Your task to perform on an android device: change notifications settings Image 0: 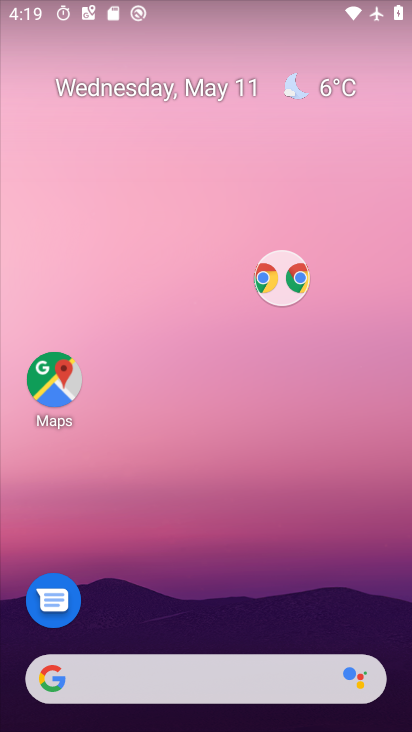
Step 0: press home button
Your task to perform on an android device: change notifications settings Image 1: 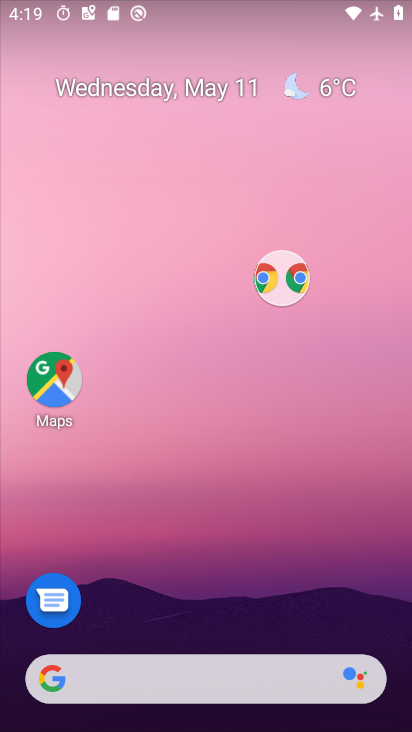
Step 1: drag from (328, 559) to (163, 160)
Your task to perform on an android device: change notifications settings Image 2: 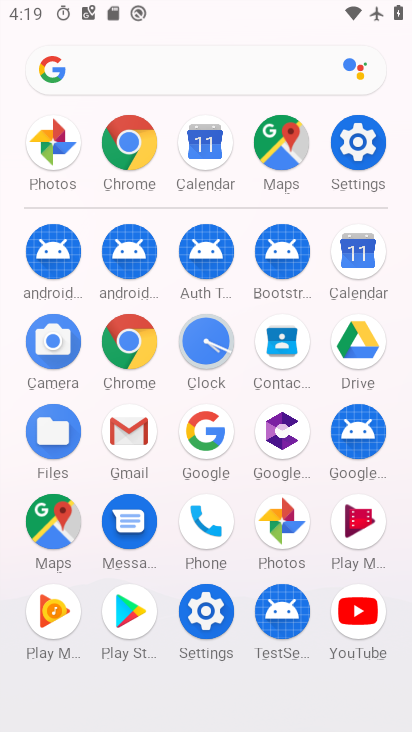
Step 2: click (350, 149)
Your task to perform on an android device: change notifications settings Image 3: 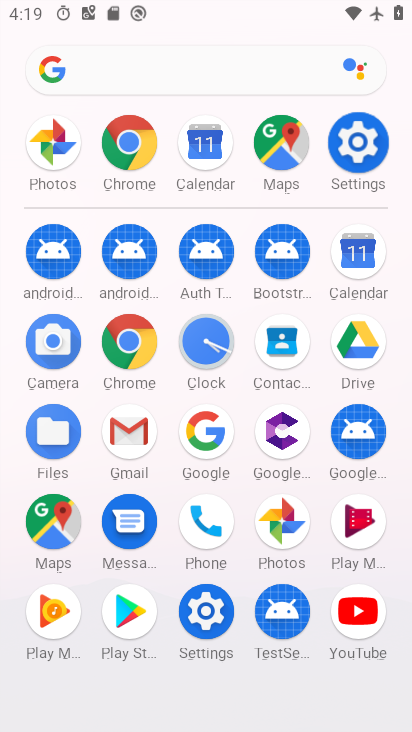
Step 3: click (349, 148)
Your task to perform on an android device: change notifications settings Image 4: 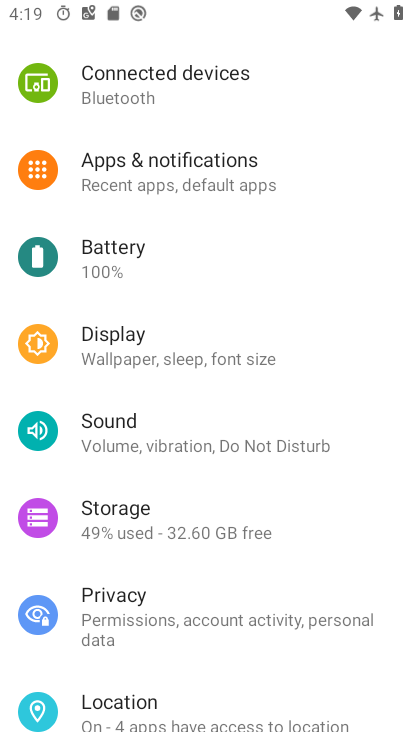
Step 4: click (172, 183)
Your task to perform on an android device: change notifications settings Image 5: 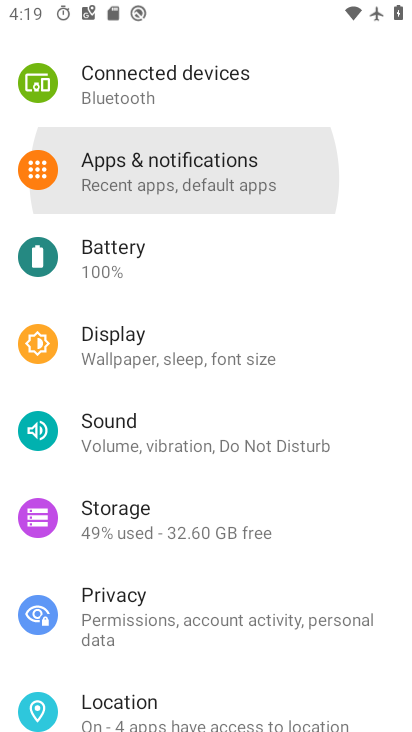
Step 5: click (172, 183)
Your task to perform on an android device: change notifications settings Image 6: 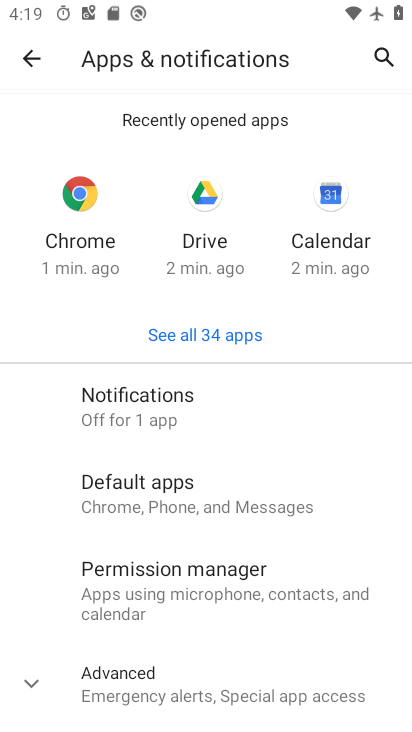
Step 6: click (125, 397)
Your task to perform on an android device: change notifications settings Image 7: 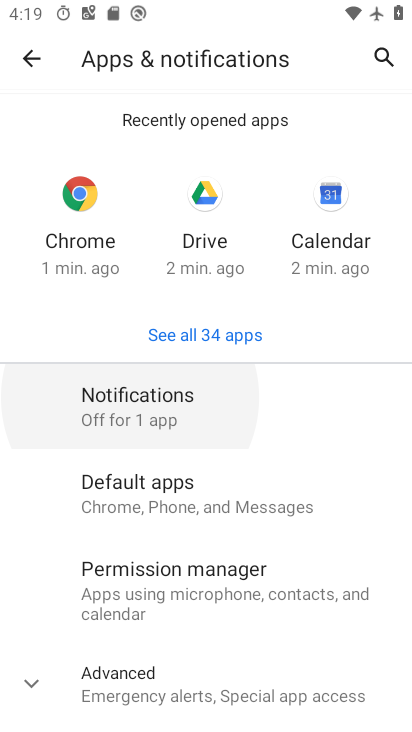
Step 7: click (125, 397)
Your task to perform on an android device: change notifications settings Image 8: 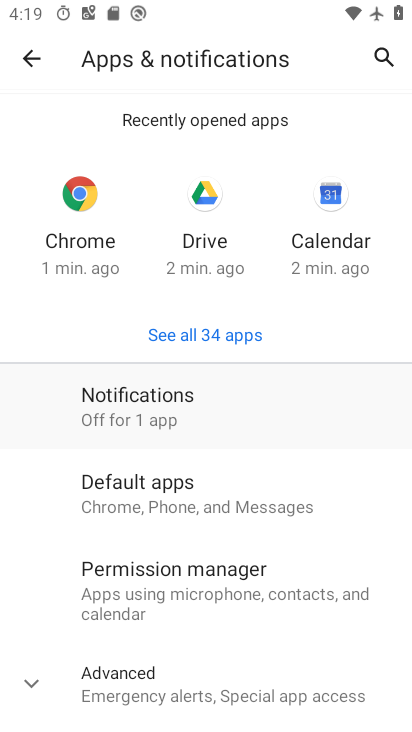
Step 8: click (125, 397)
Your task to perform on an android device: change notifications settings Image 9: 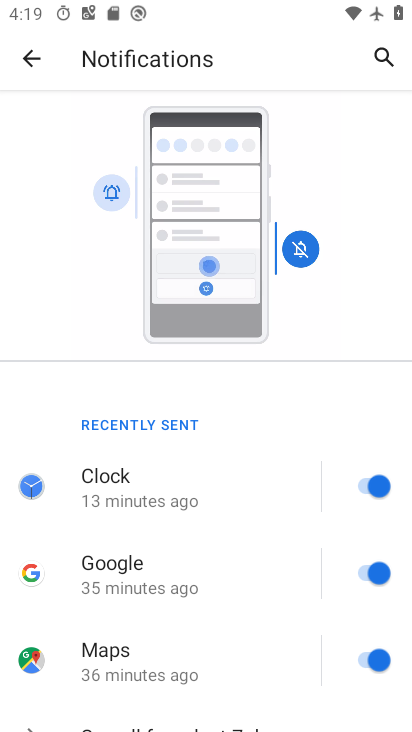
Step 9: drag from (199, 497) to (178, 247)
Your task to perform on an android device: change notifications settings Image 10: 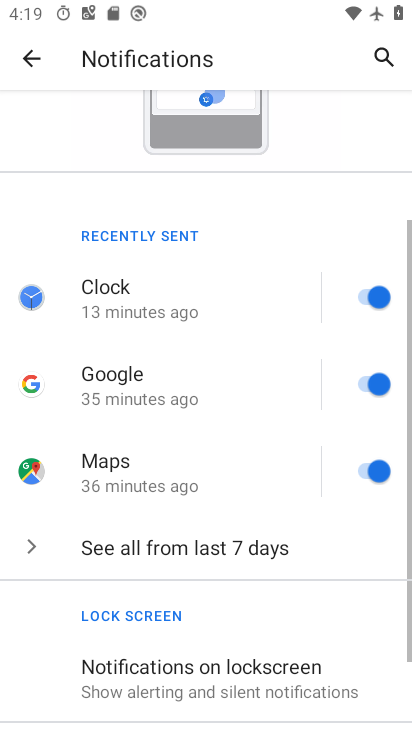
Step 10: drag from (192, 483) to (108, 10)
Your task to perform on an android device: change notifications settings Image 11: 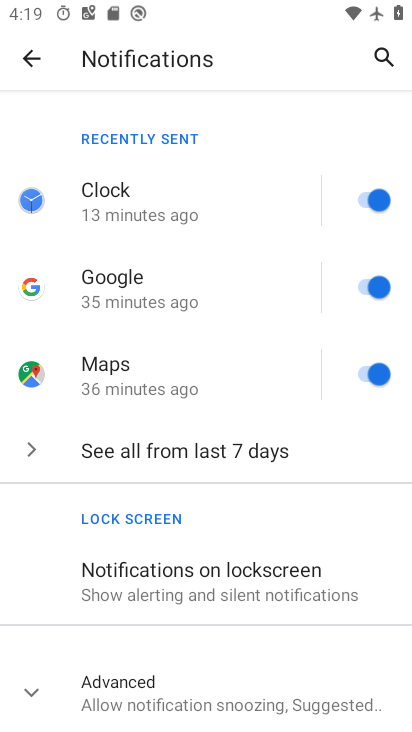
Step 11: click (150, 580)
Your task to perform on an android device: change notifications settings Image 12: 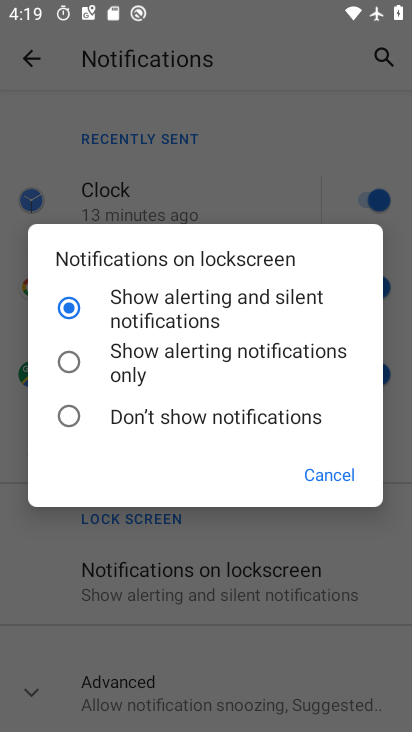
Step 12: click (326, 459)
Your task to perform on an android device: change notifications settings Image 13: 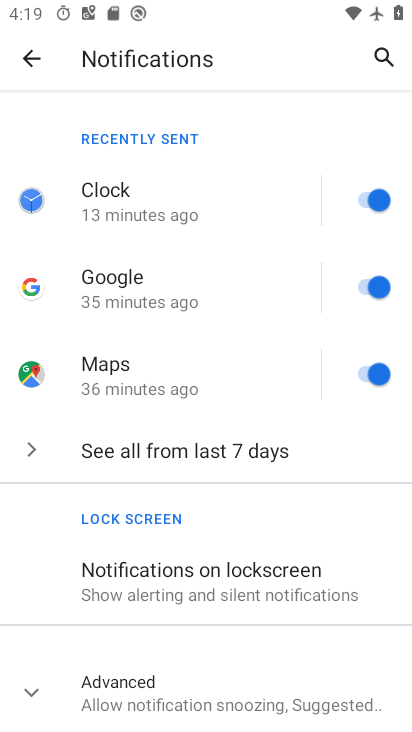
Step 13: drag from (233, 593) to (153, 253)
Your task to perform on an android device: change notifications settings Image 14: 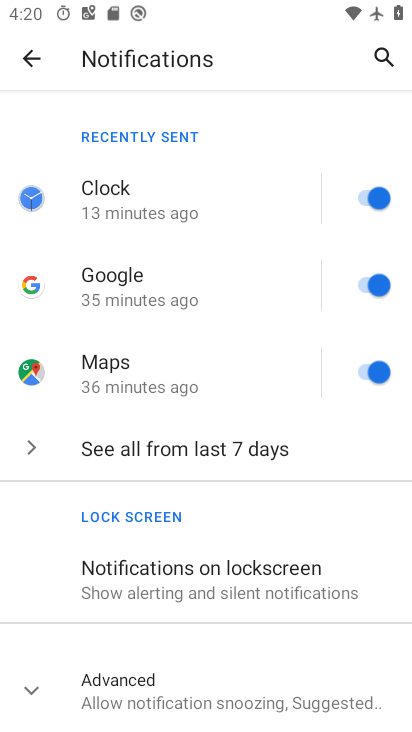
Step 14: drag from (257, 597) to (220, 85)
Your task to perform on an android device: change notifications settings Image 15: 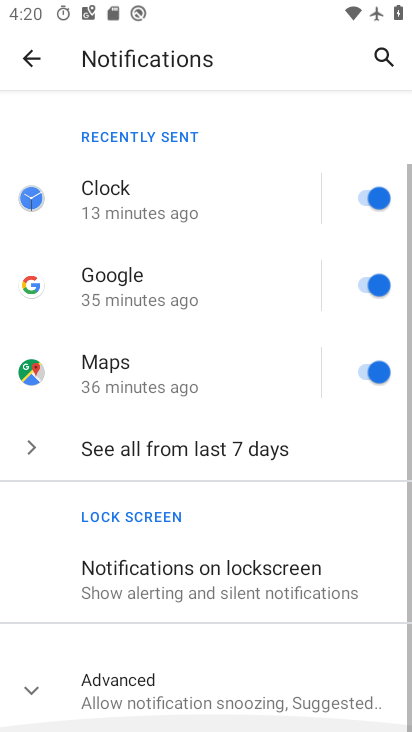
Step 15: drag from (180, 512) to (157, 150)
Your task to perform on an android device: change notifications settings Image 16: 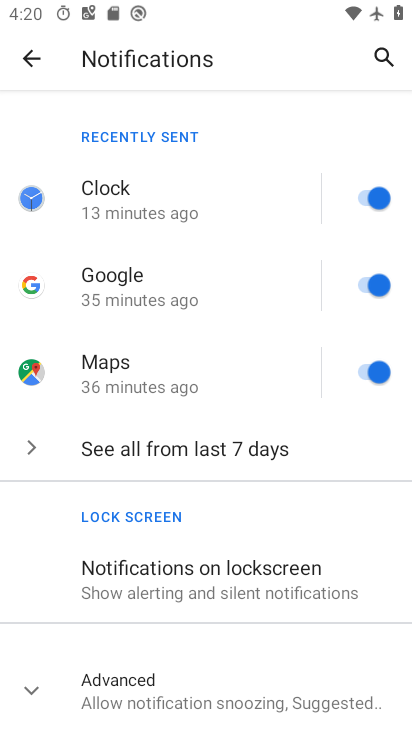
Step 16: click (135, 707)
Your task to perform on an android device: change notifications settings Image 17: 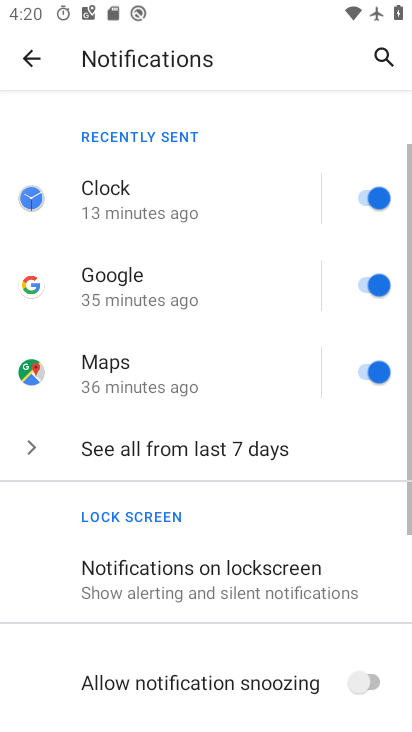
Step 17: drag from (235, 631) to (222, 326)
Your task to perform on an android device: change notifications settings Image 18: 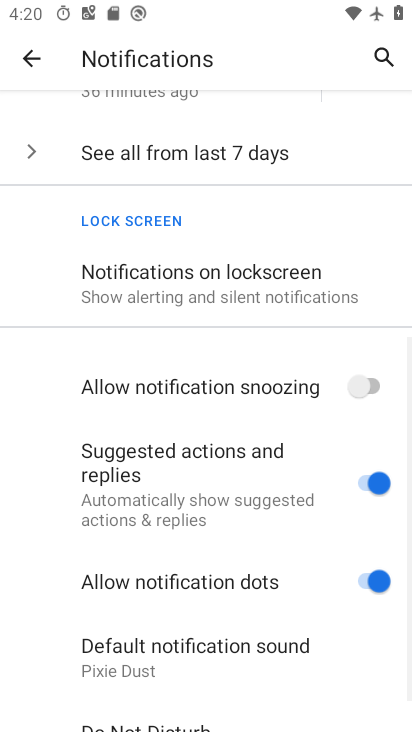
Step 18: drag from (245, 481) to (199, 83)
Your task to perform on an android device: change notifications settings Image 19: 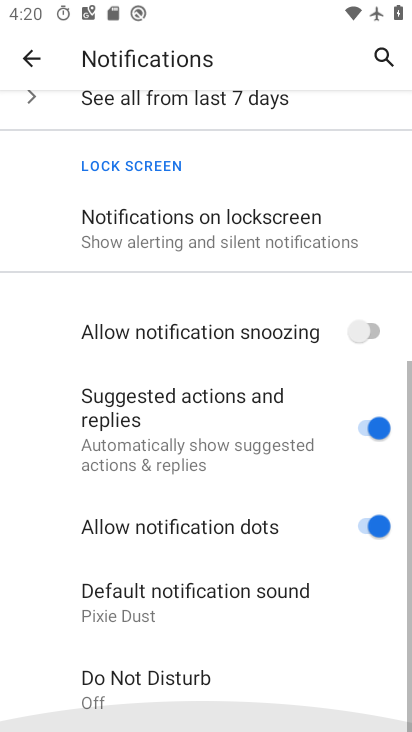
Step 19: drag from (213, 640) to (155, 191)
Your task to perform on an android device: change notifications settings Image 20: 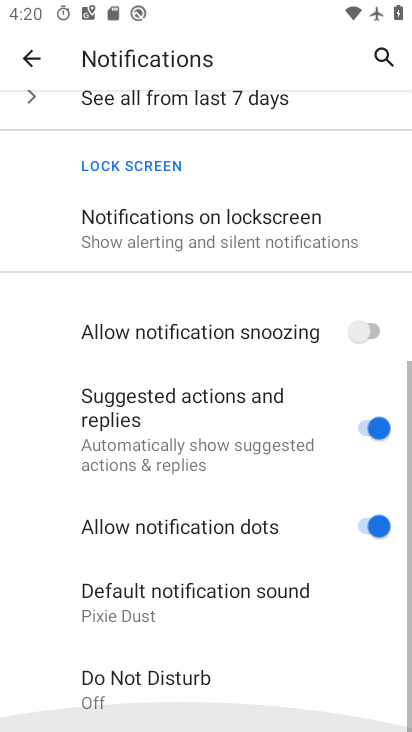
Step 20: drag from (231, 595) to (151, 135)
Your task to perform on an android device: change notifications settings Image 21: 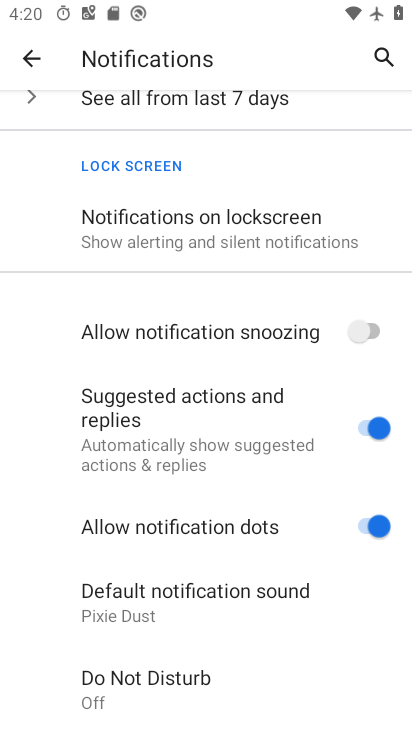
Step 21: drag from (213, 522) to (151, 24)
Your task to perform on an android device: change notifications settings Image 22: 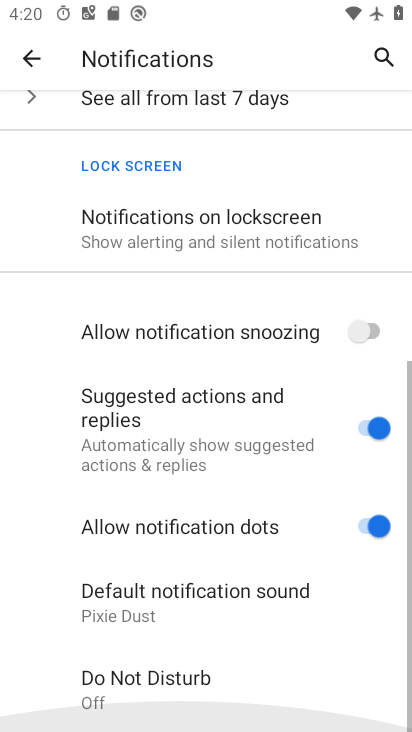
Step 22: drag from (247, 498) to (189, 62)
Your task to perform on an android device: change notifications settings Image 23: 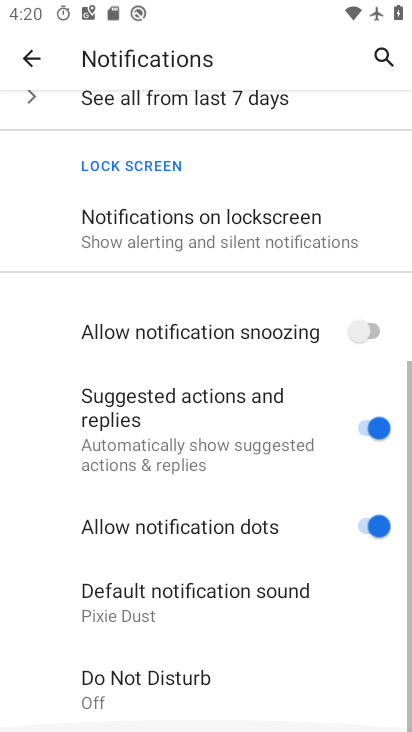
Step 23: drag from (154, 323) to (224, 634)
Your task to perform on an android device: change notifications settings Image 24: 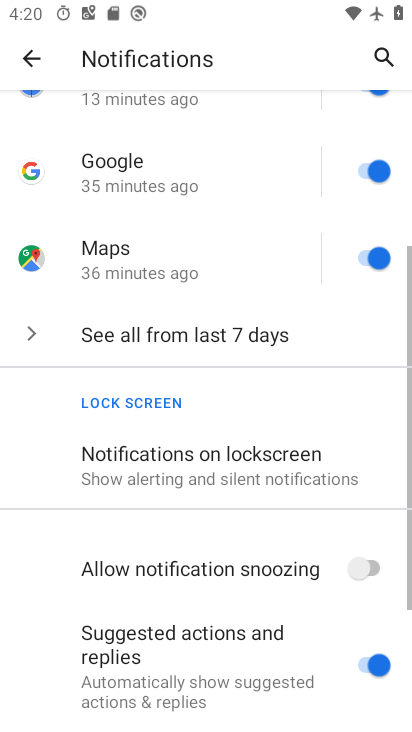
Step 24: drag from (157, 434) to (262, 651)
Your task to perform on an android device: change notifications settings Image 25: 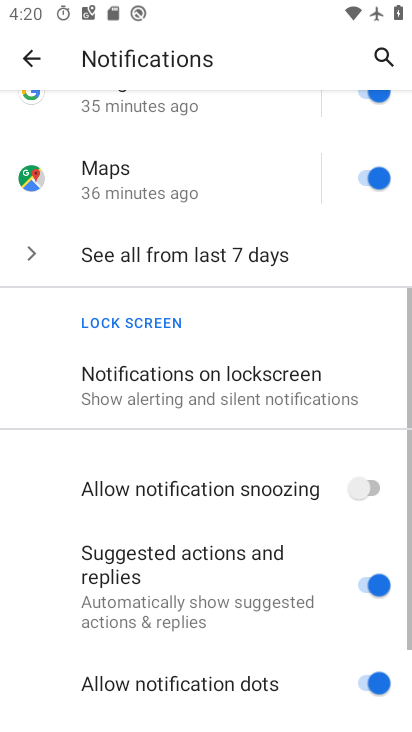
Step 25: drag from (243, 349) to (254, 699)
Your task to perform on an android device: change notifications settings Image 26: 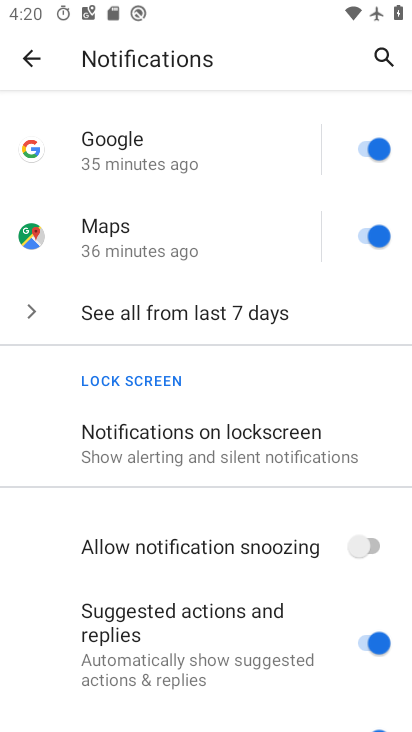
Step 26: click (359, 548)
Your task to perform on an android device: change notifications settings Image 27: 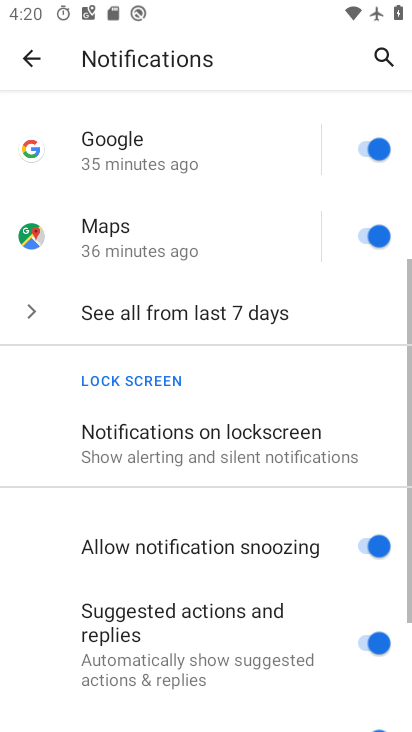
Step 27: drag from (209, 592) to (188, 190)
Your task to perform on an android device: change notifications settings Image 28: 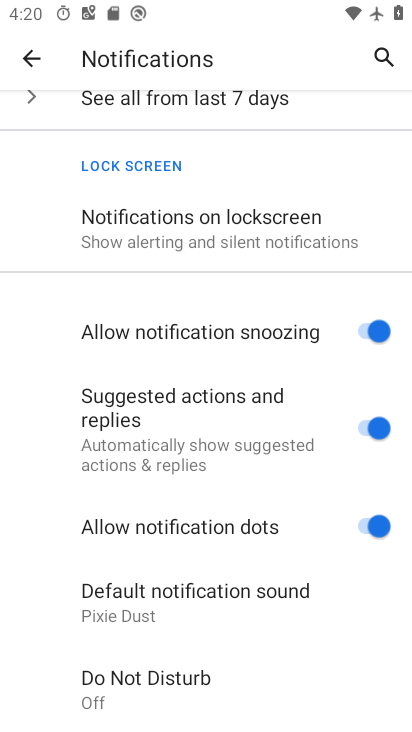
Step 28: click (375, 520)
Your task to perform on an android device: change notifications settings Image 29: 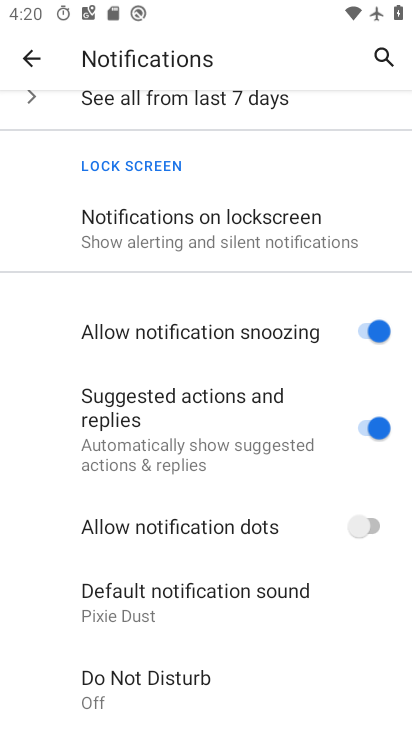
Step 29: task complete